Your task to perform on an android device: Open battery settings Image 0: 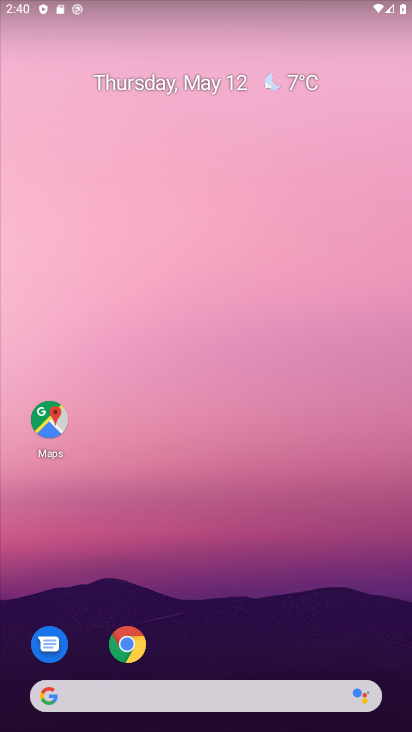
Step 0: drag from (208, 680) to (294, 151)
Your task to perform on an android device: Open battery settings Image 1: 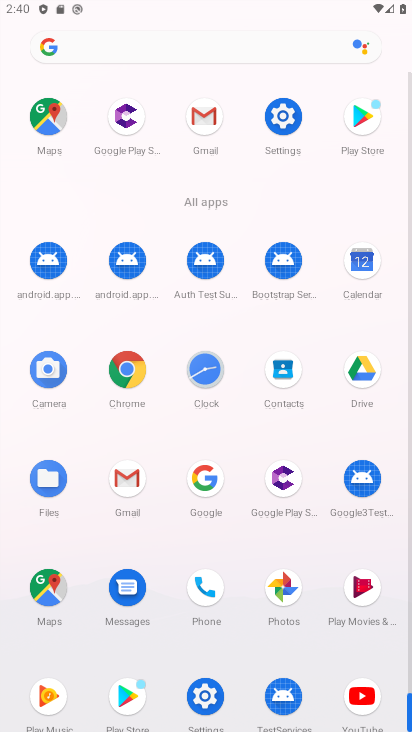
Step 1: click (213, 705)
Your task to perform on an android device: Open battery settings Image 2: 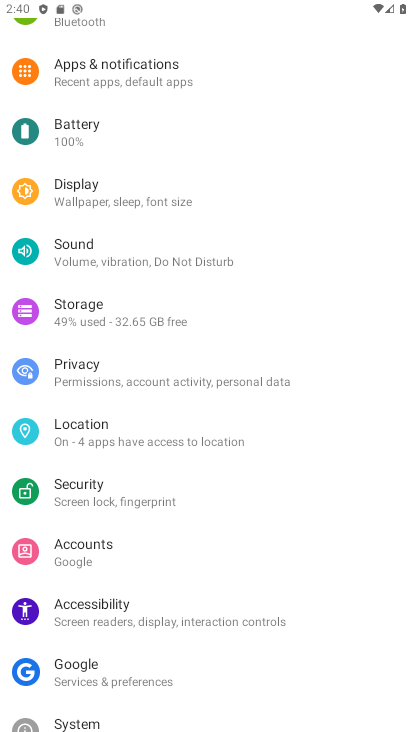
Step 2: click (131, 137)
Your task to perform on an android device: Open battery settings Image 3: 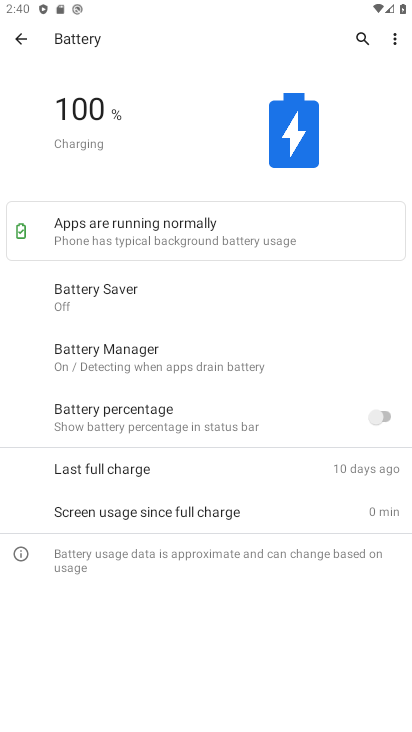
Step 3: task complete